Your task to perform on an android device: change the upload size in google photos Image 0: 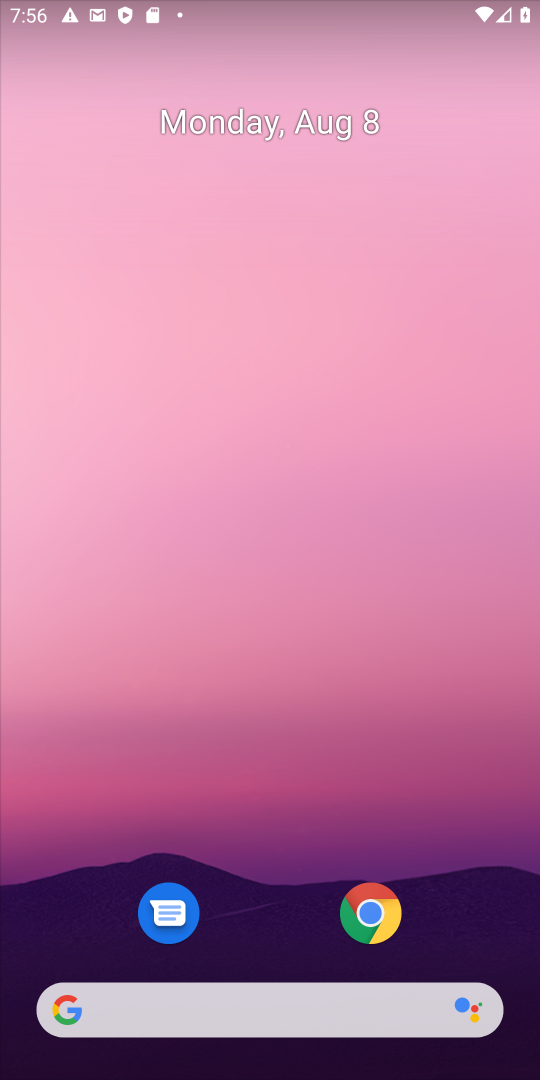
Step 0: drag from (257, 742) to (238, 56)
Your task to perform on an android device: change the upload size in google photos Image 1: 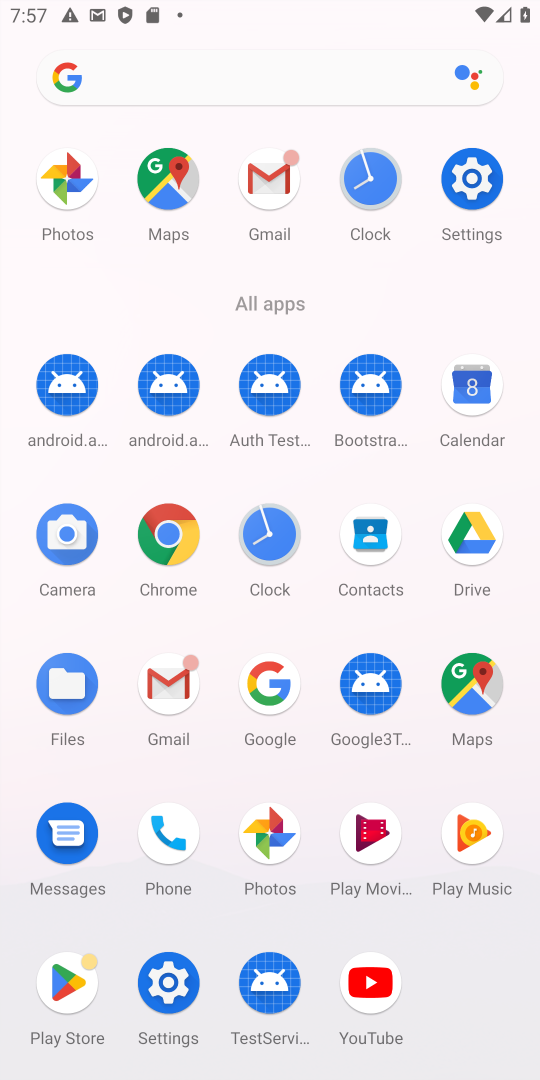
Step 1: click (279, 831)
Your task to perform on an android device: change the upload size in google photos Image 2: 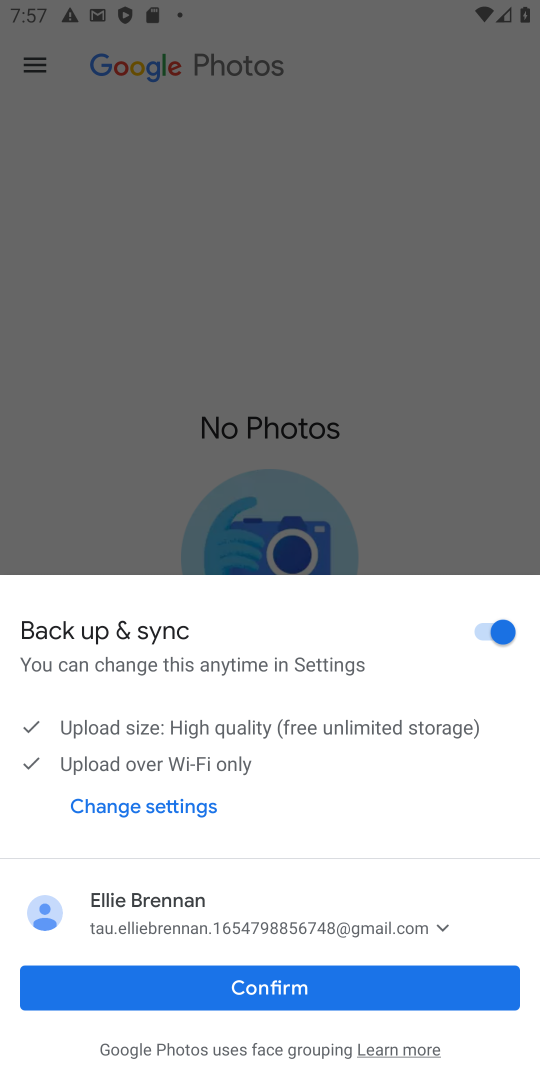
Step 2: click (157, 994)
Your task to perform on an android device: change the upload size in google photos Image 3: 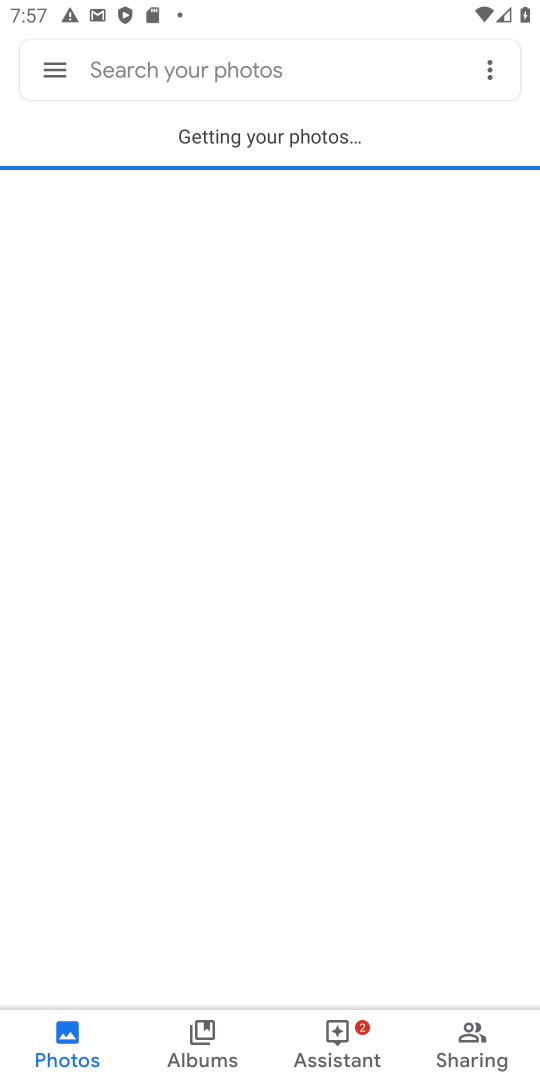
Step 3: click (60, 62)
Your task to perform on an android device: change the upload size in google photos Image 4: 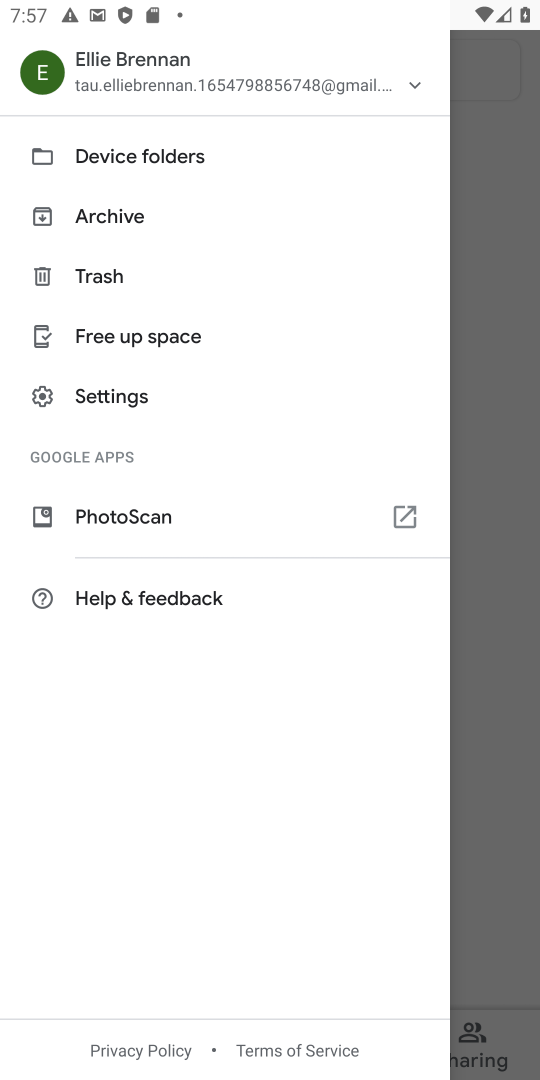
Step 4: click (152, 393)
Your task to perform on an android device: change the upload size in google photos Image 5: 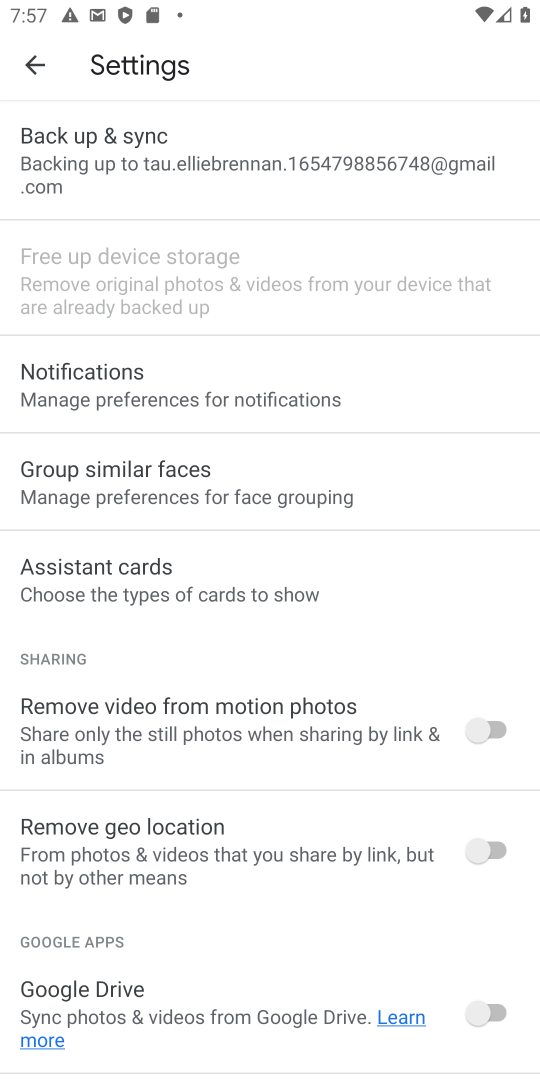
Step 5: click (184, 158)
Your task to perform on an android device: change the upload size in google photos Image 6: 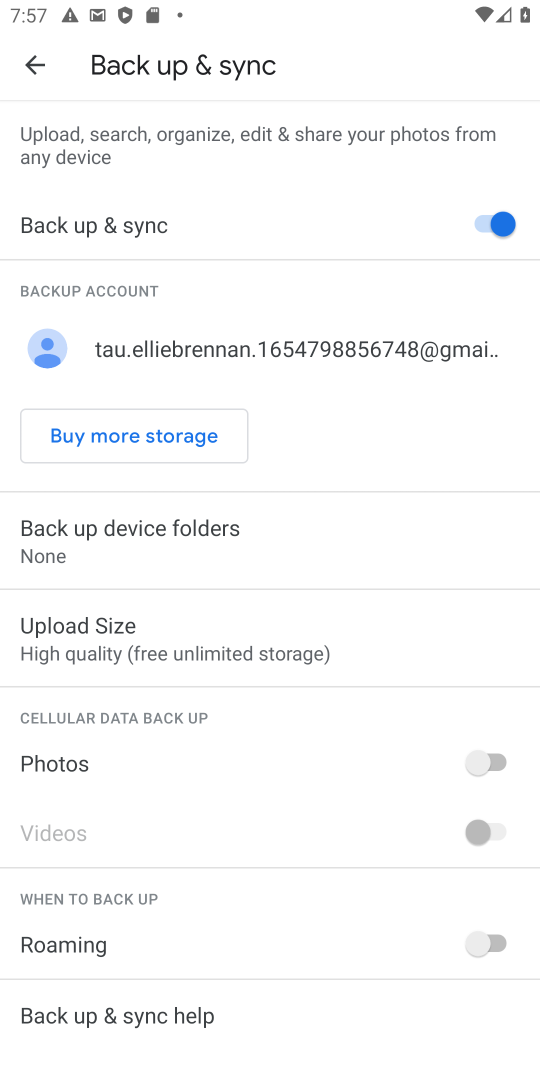
Step 6: click (102, 653)
Your task to perform on an android device: change the upload size in google photos Image 7: 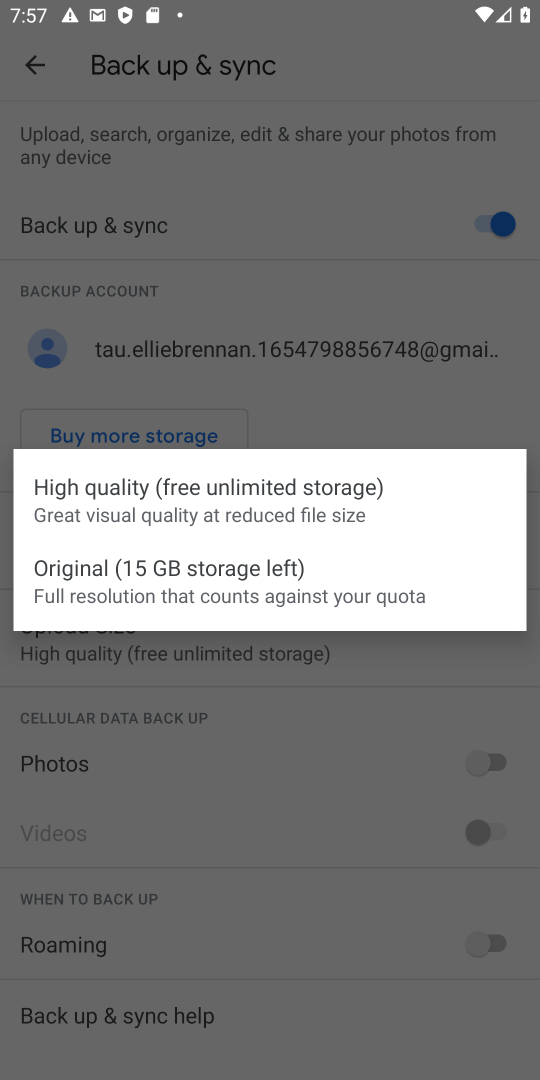
Step 7: click (77, 578)
Your task to perform on an android device: change the upload size in google photos Image 8: 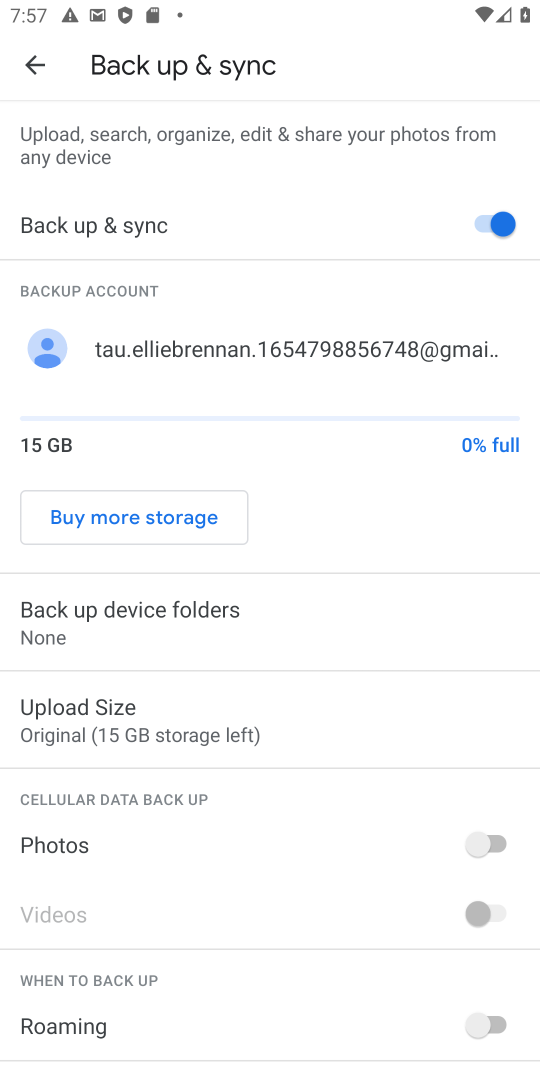
Step 8: task complete